Your task to perform on an android device: Open display settings Image 0: 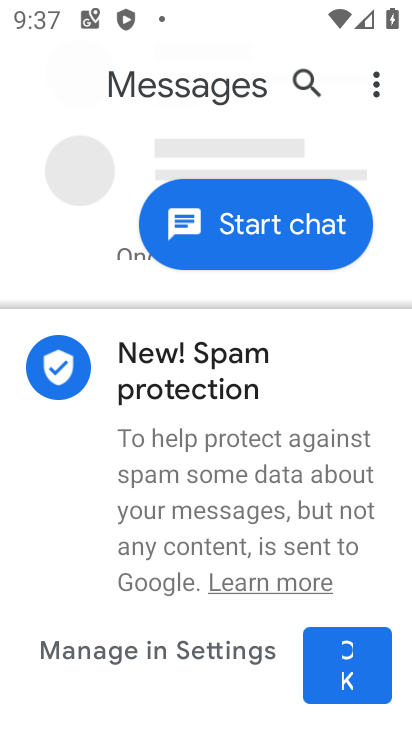
Step 0: press back button
Your task to perform on an android device: Open display settings Image 1: 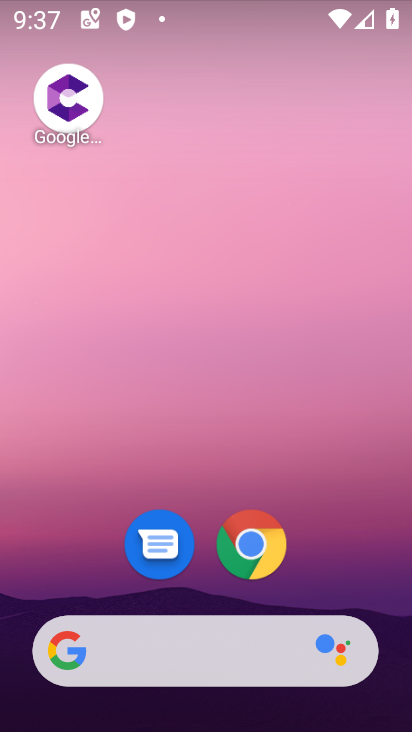
Step 1: drag from (236, 583) to (345, 518)
Your task to perform on an android device: Open display settings Image 2: 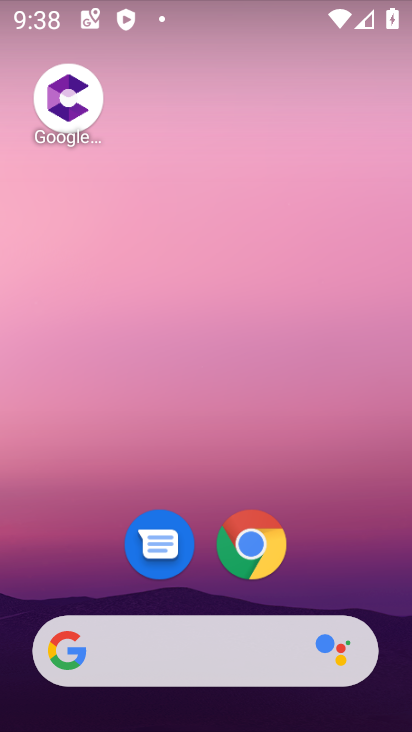
Step 2: drag from (200, 600) to (192, 11)
Your task to perform on an android device: Open display settings Image 3: 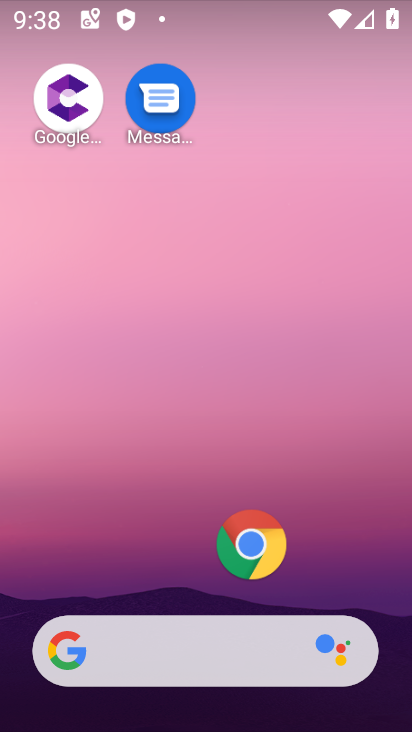
Step 3: drag from (175, 634) to (385, 22)
Your task to perform on an android device: Open display settings Image 4: 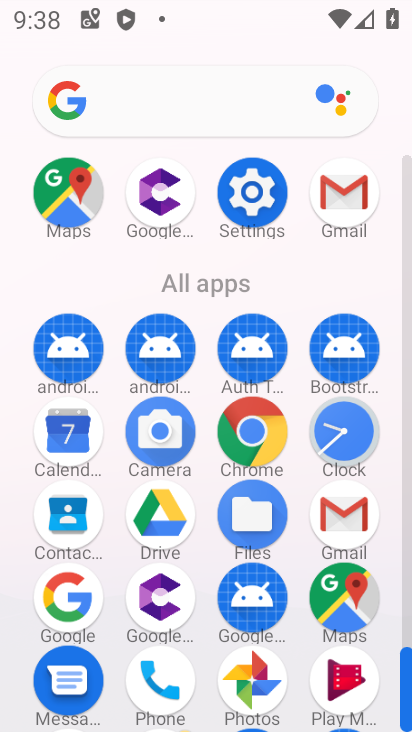
Step 4: click (258, 191)
Your task to perform on an android device: Open display settings Image 5: 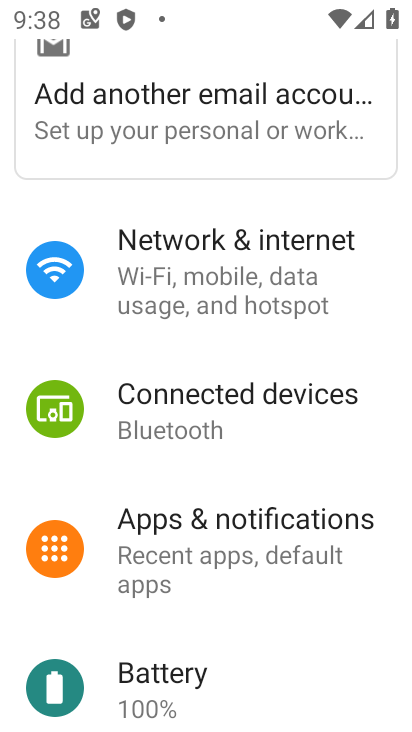
Step 5: drag from (231, 575) to (275, 143)
Your task to perform on an android device: Open display settings Image 6: 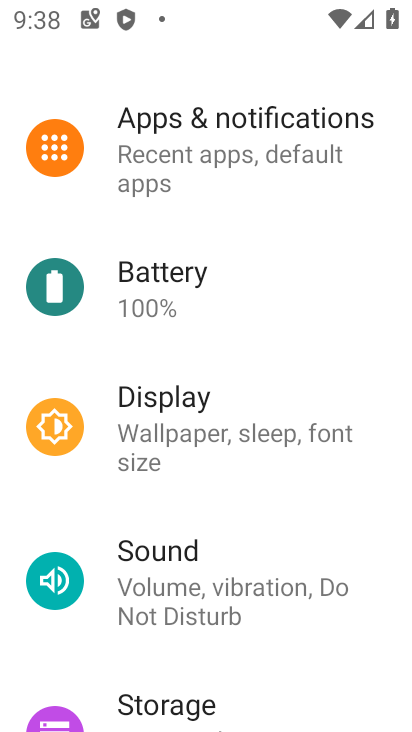
Step 6: click (176, 436)
Your task to perform on an android device: Open display settings Image 7: 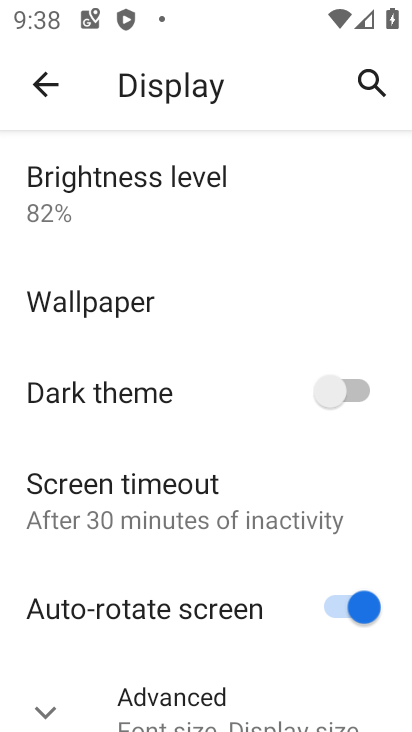
Step 7: task complete